Your task to perform on an android device: visit the assistant section in the google photos Image 0: 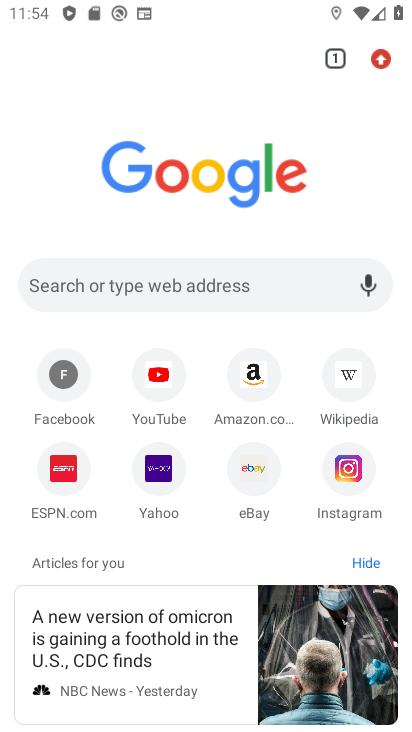
Step 0: press home button
Your task to perform on an android device: visit the assistant section in the google photos Image 1: 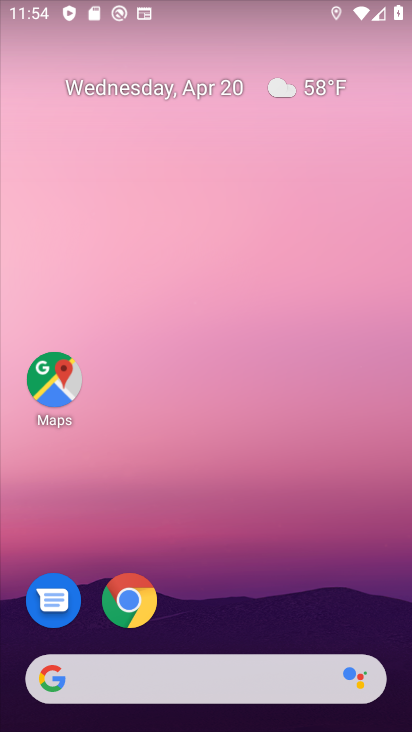
Step 1: drag from (205, 634) to (191, 19)
Your task to perform on an android device: visit the assistant section in the google photos Image 2: 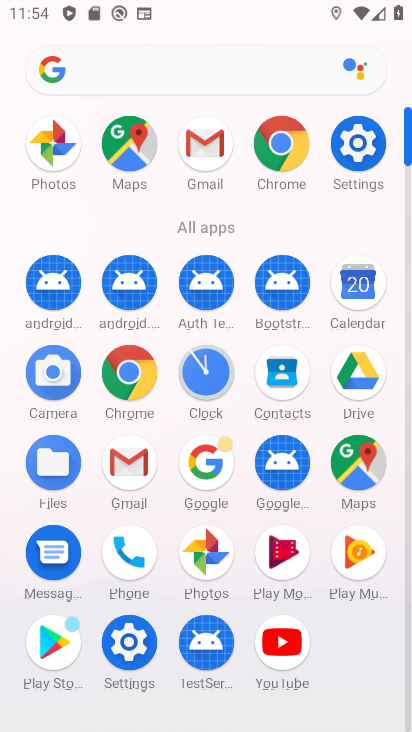
Step 2: click (202, 563)
Your task to perform on an android device: visit the assistant section in the google photos Image 3: 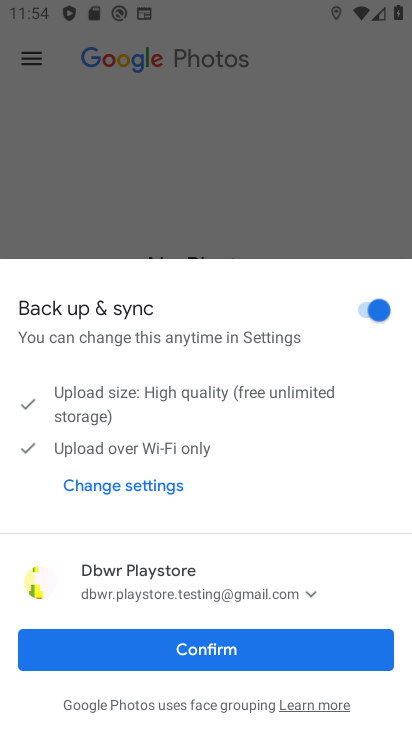
Step 3: click (281, 659)
Your task to perform on an android device: visit the assistant section in the google photos Image 4: 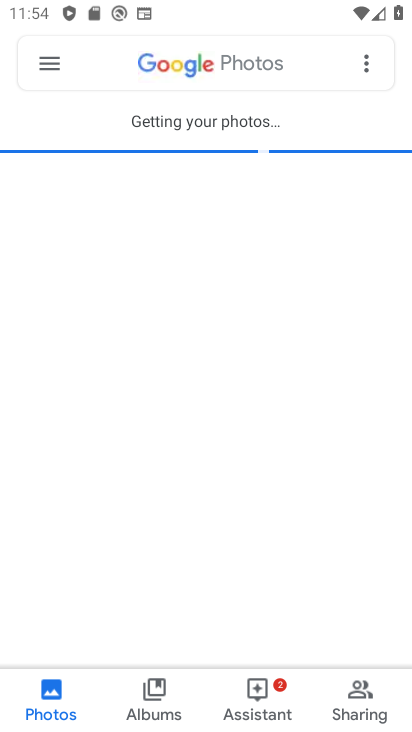
Step 4: click (246, 693)
Your task to perform on an android device: visit the assistant section in the google photos Image 5: 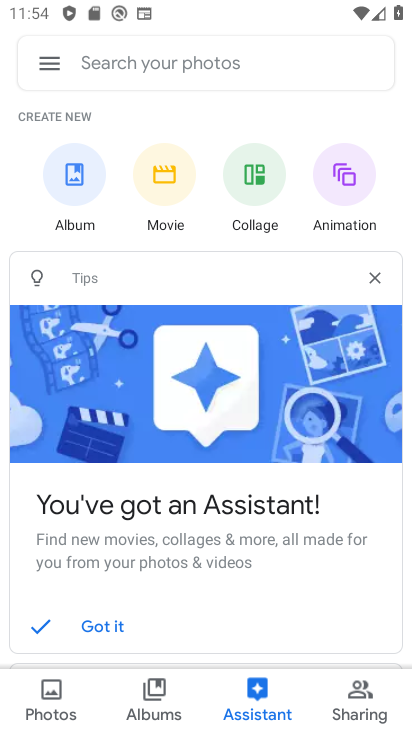
Step 5: task complete